Your task to perform on an android device: Go to settings Image 0: 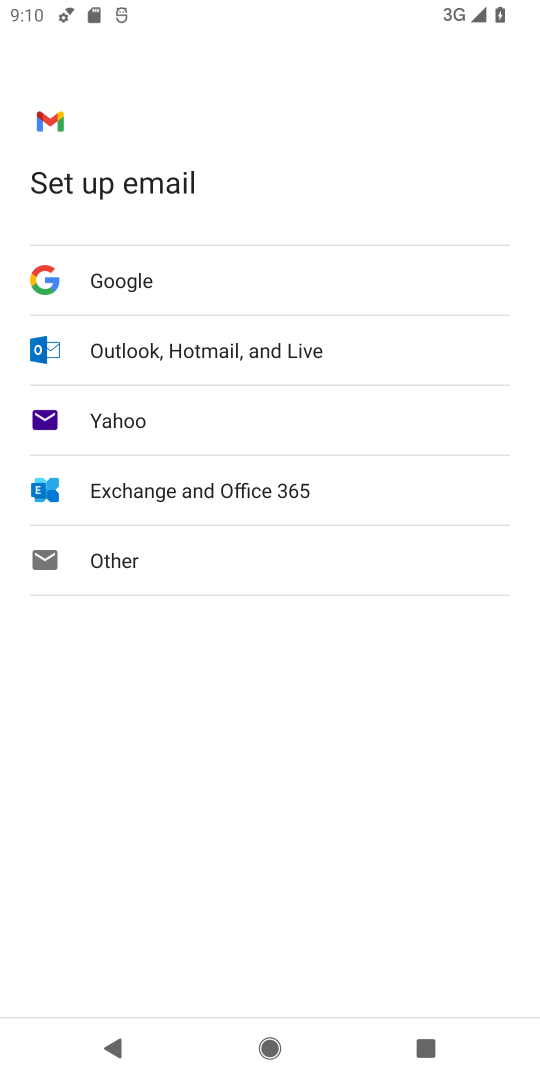
Step 0: press home button
Your task to perform on an android device: Go to settings Image 1: 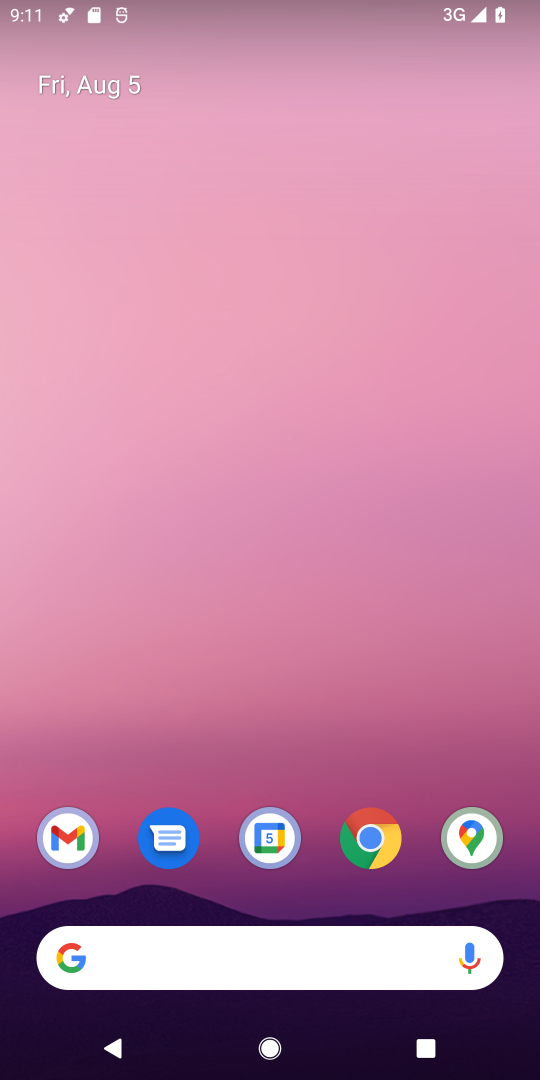
Step 1: drag from (293, 735) to (331, 247)
Your task to perform on an android device: Go to settings Image 2: 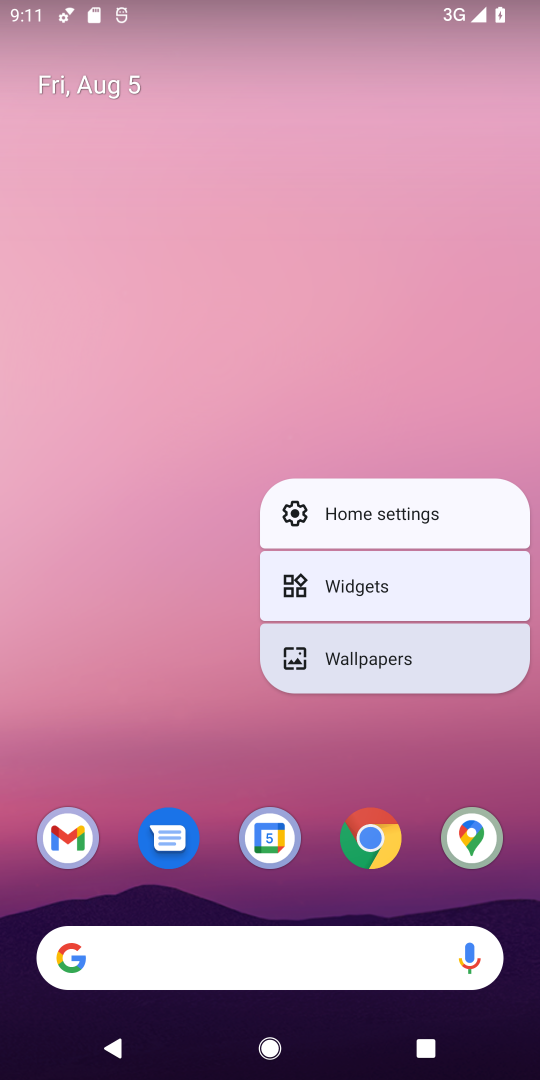
Step 2: click (148, 662)
Your task to perform on an android device: Go to settings Image 3: 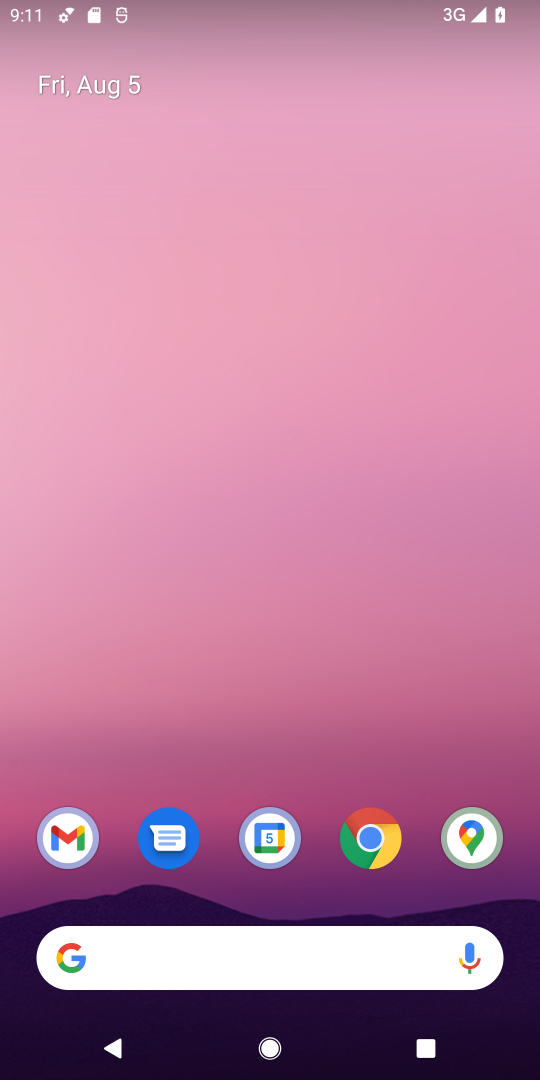
Step 3: drag from (266, 13) to (279, 346)
Your task to perform on an android device: Go to settings Image 4: 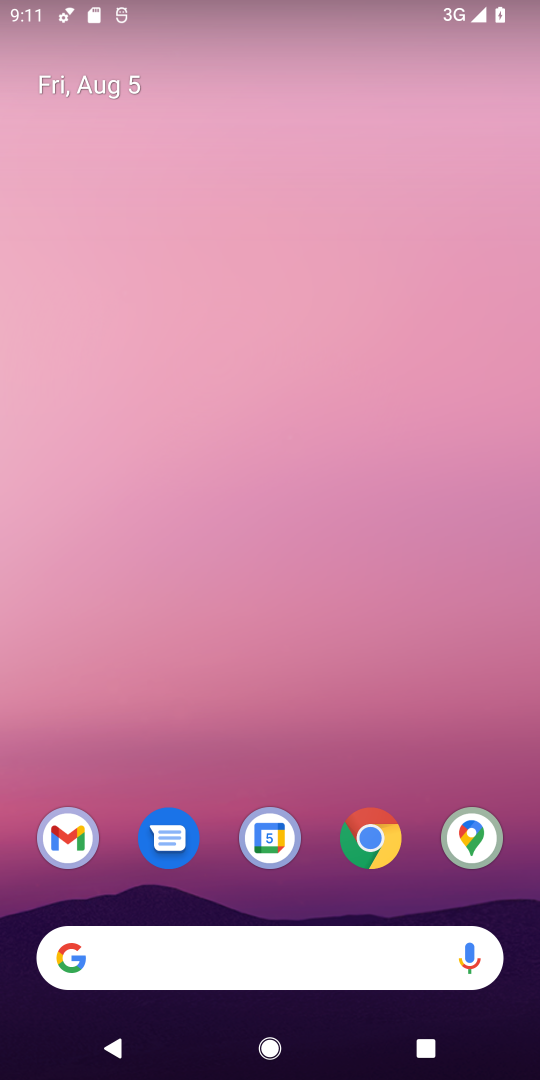
Step 4: drag from (276, 12) to (238, 876)
Your task to perform on an android device: Go to settings Image 5: 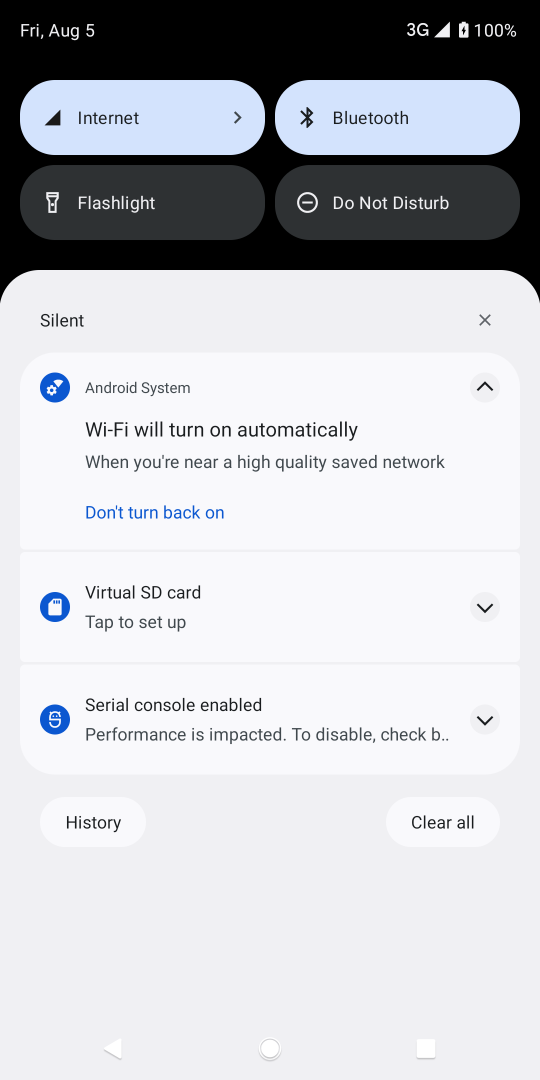
Step 5: drag from (249, 265) to (244, 680)
Your task to perform on an android device: Go to settings Image 6: 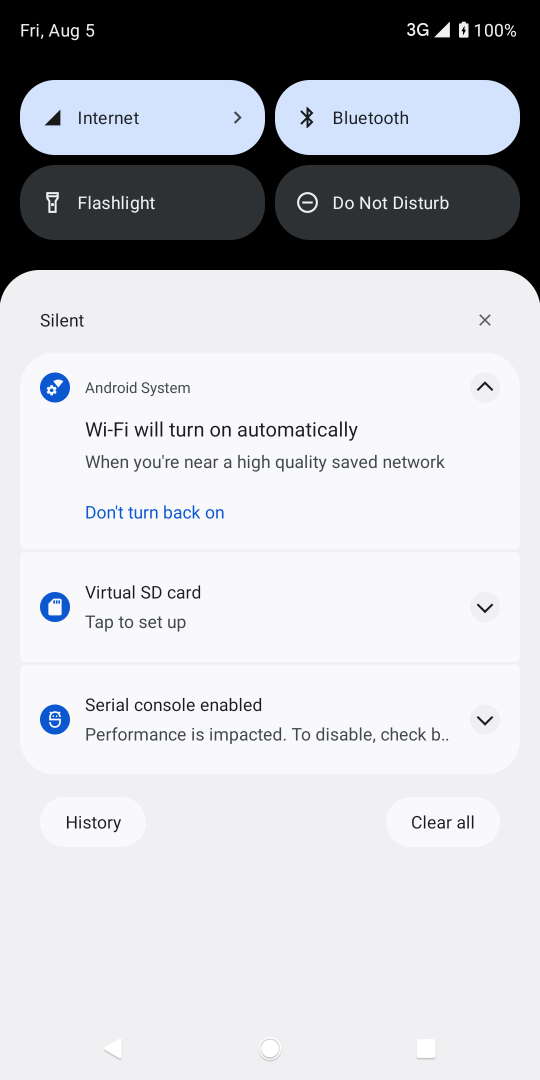
Step 6: drag from (204, 267) to (116, 1074)
Your task to perform on an android device: Go to settings Image 7: 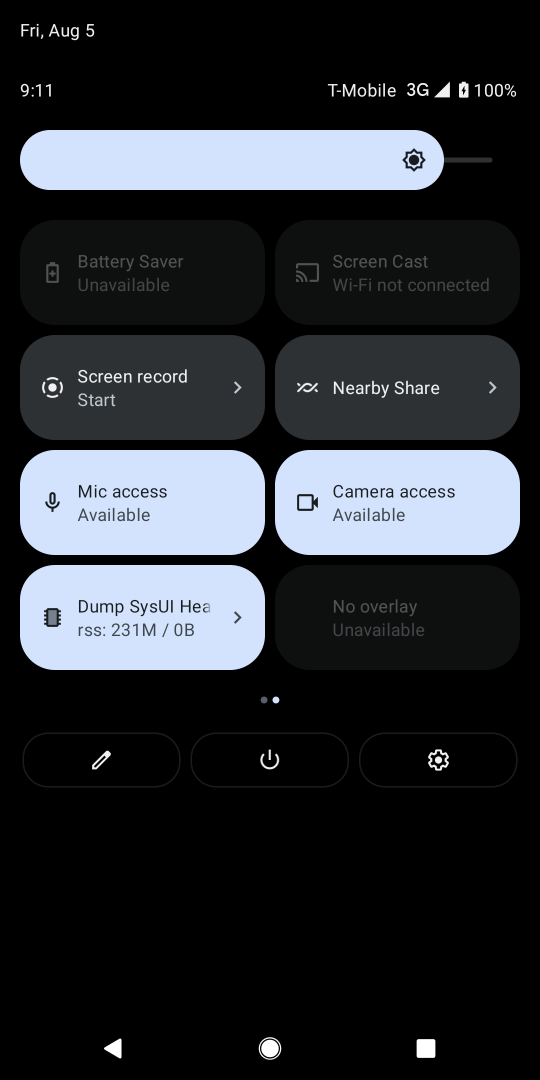
Step 7: click (441, 758)
Your task to perform on an android device: Go to settings Image 8: 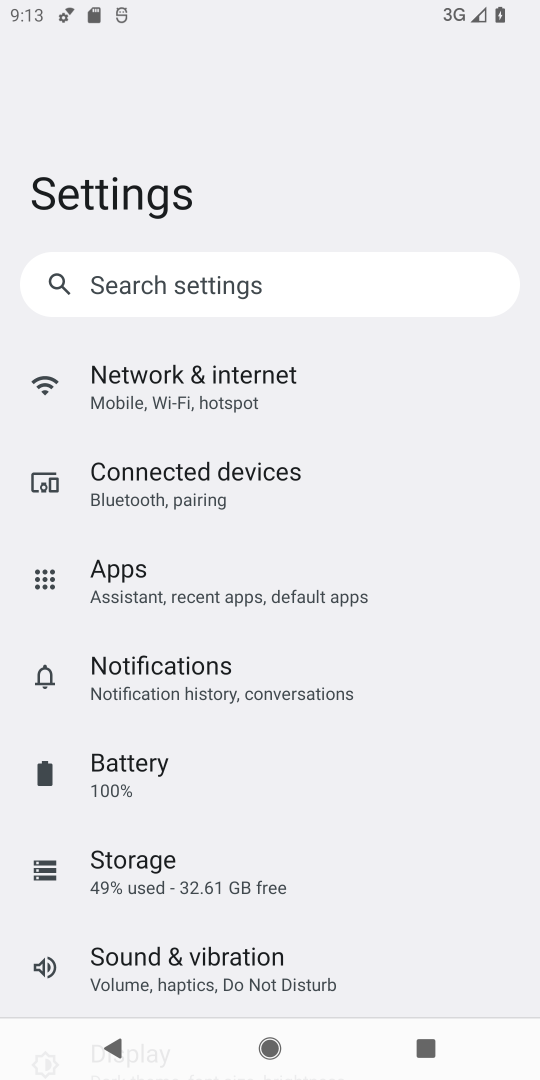
Step 8: task complete